Your task to perform on an android device: Toggle the flashlight Image 0: 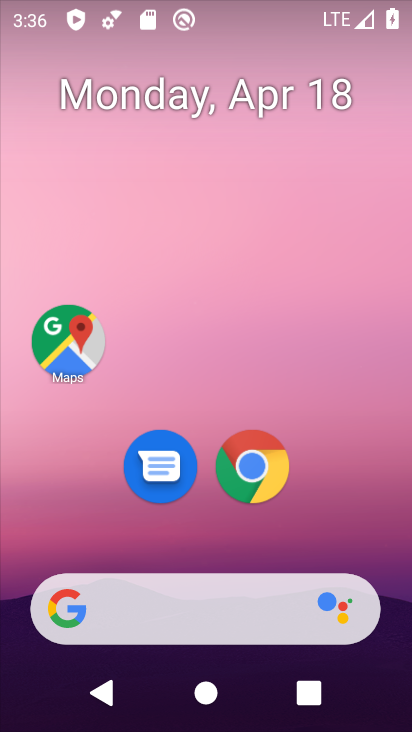
Step 0: drag from (313, 508) to (275, 174)
Your task to perform on an android device: Toggle the flashlight Image 1: 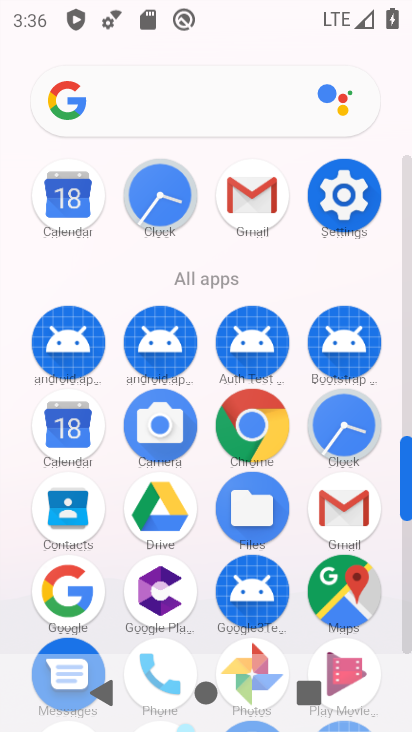
Step 1: click (338, 207)
Your task to perform on an android device: Toggle the flashlight Image 2: 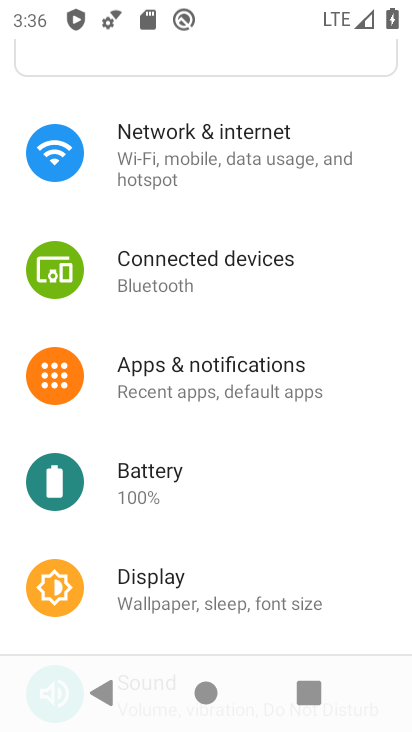
Step 2: task complete